Your task to perform on an android device: Open the calendar and show me this week's events? Image 0: 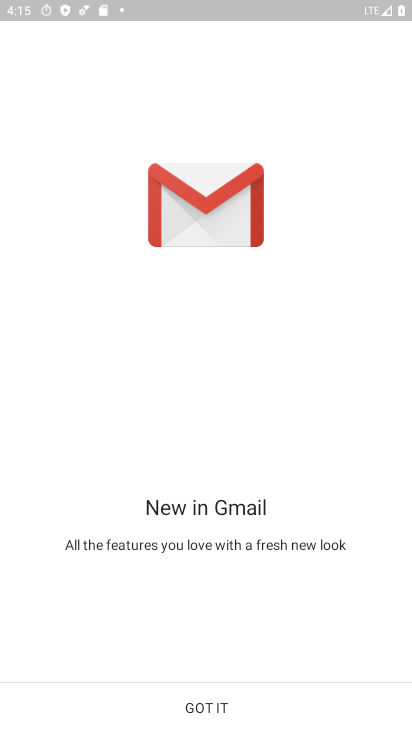
Step 0: press home button
Your task to perform on an android device: Open the calendar and show me this week's events? Image 1: 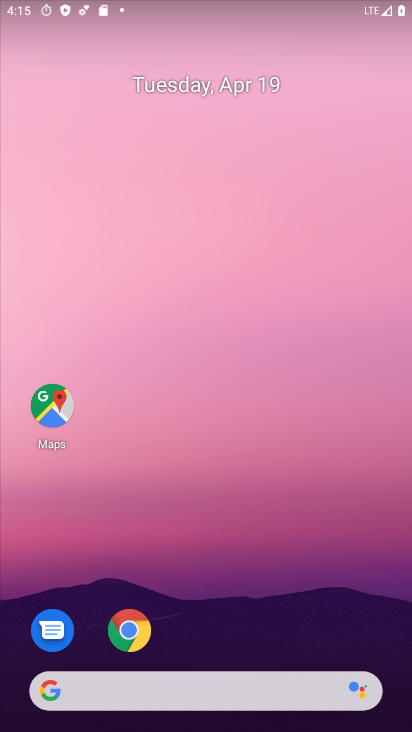
Step 1: drag from (234, 628) to (249, 278)
Your task to perform on an android device: Open the calendar and show me this week's events? Image 2: 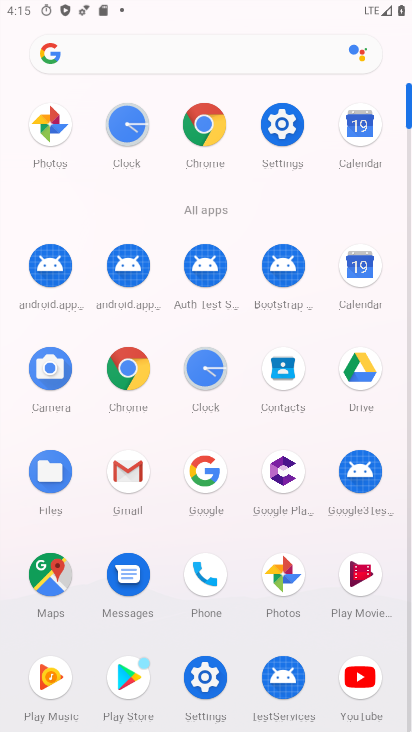
Step 2: click (360, 136)
Your task to perform on an android device: Open the calendar and show me this week's events? Image 3: 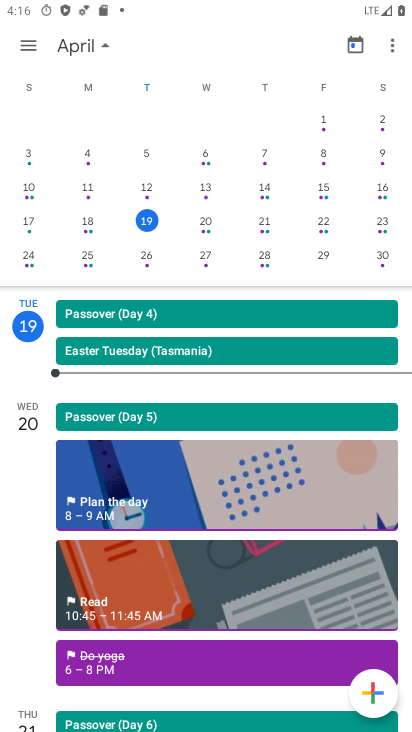
Step 3: click (323, 224)
Your task to perform on an android device: Open the calendar and show me this week's events? Image 4: 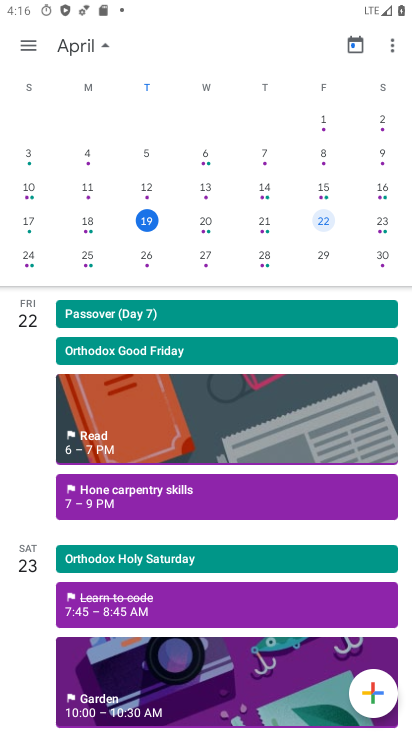
Step 4: click (164, 489)
Your task to perform on an android device: Open the calendar and show me this week's events? Image 5: 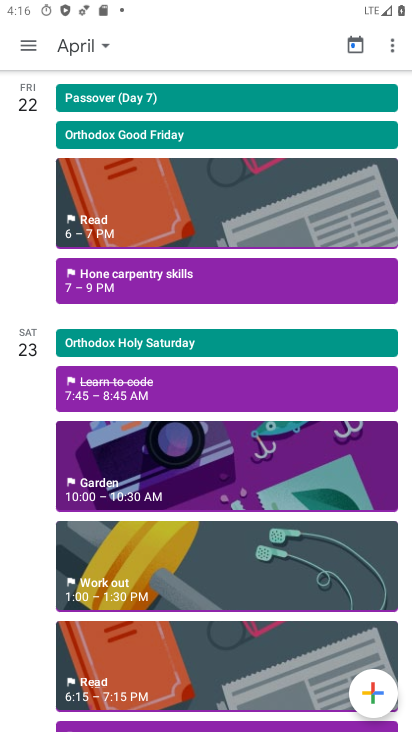
Step 5: click (196, 275)
Your task to perform on an android device: Open the calendar and show me this week's events? Image 6: 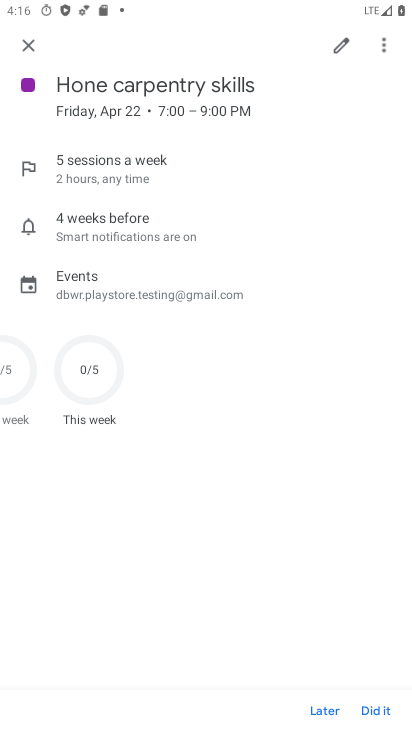
Step 6: task complete